Your task to perform on an android device: Go to location settings Image 0: 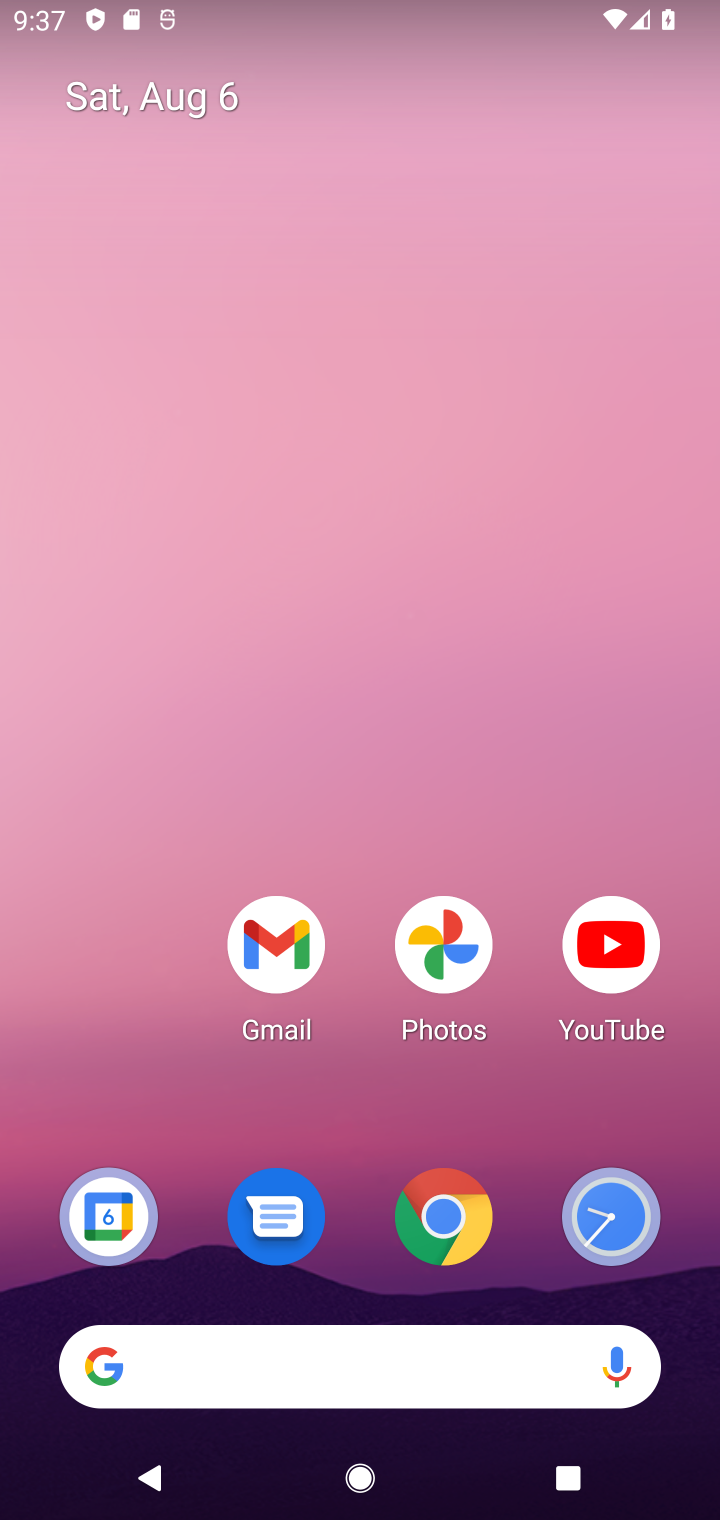
Step 0: press back button
Your task to perform on an android device: Go to location settings Image 1: 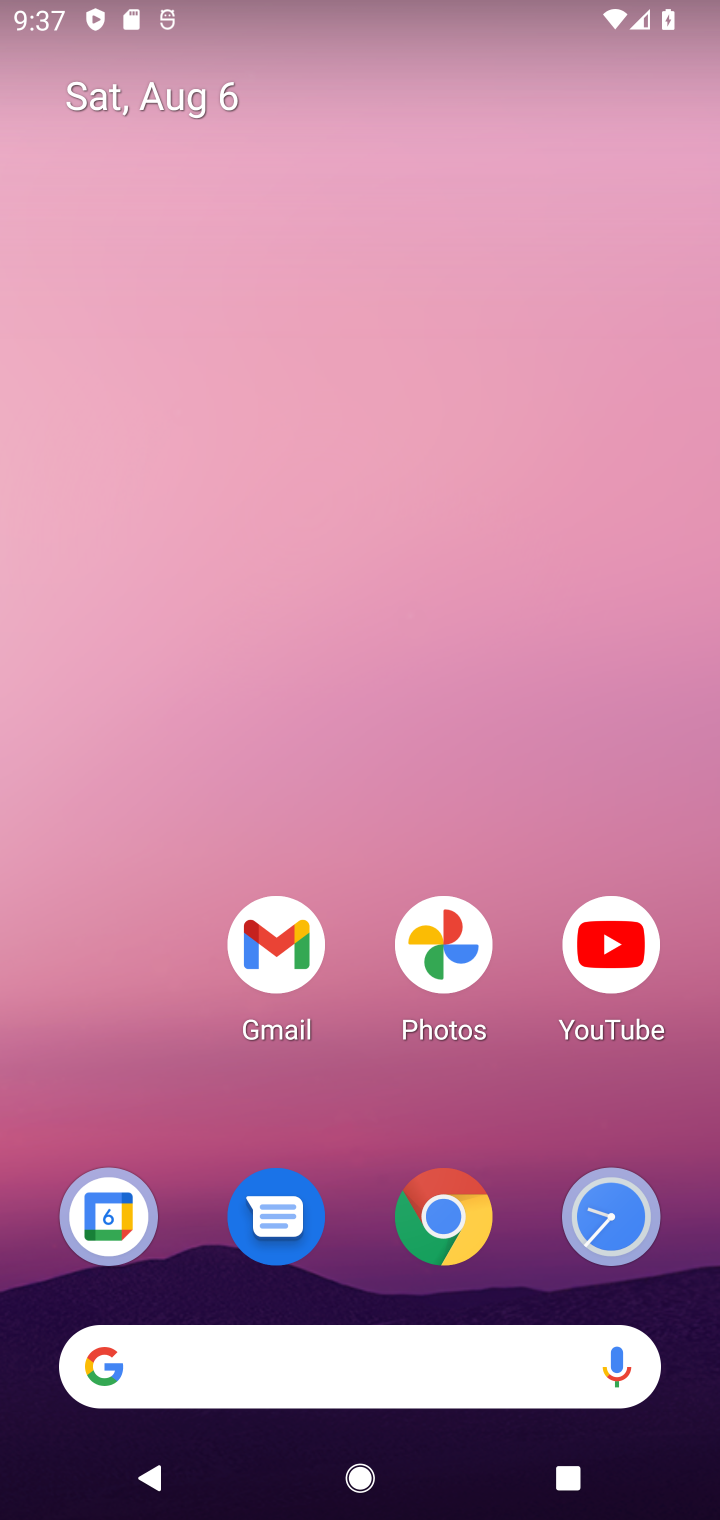
Step 1: press home button
Your task to perform on an android device: Go to location settings Image 2: 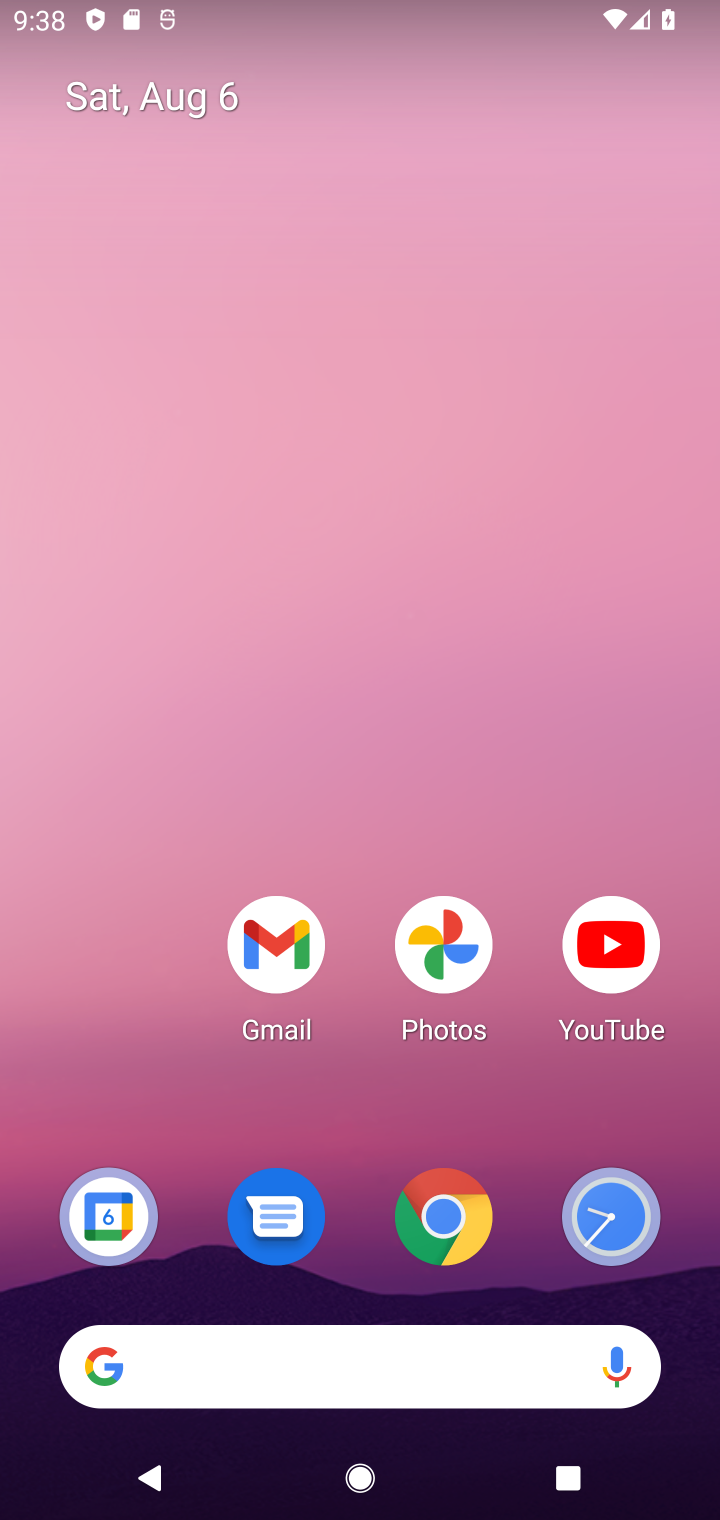
Step 2: drag from (419, 1306) to (360, 656)
Your task to perform on an android device: Go to location settings Image 3: 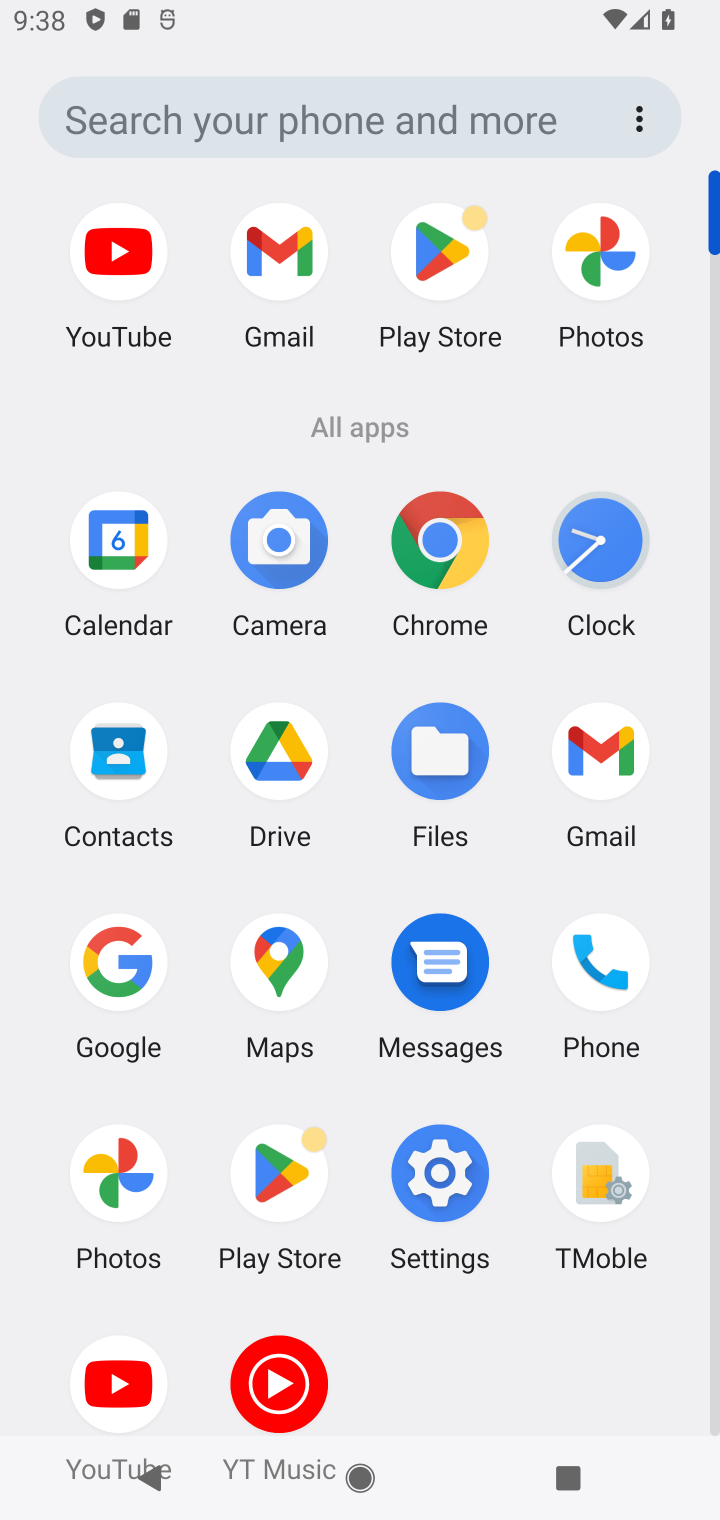
Step 3: click (458, 1196)
Your task to perform on an android device: Go to location settings Image 4: 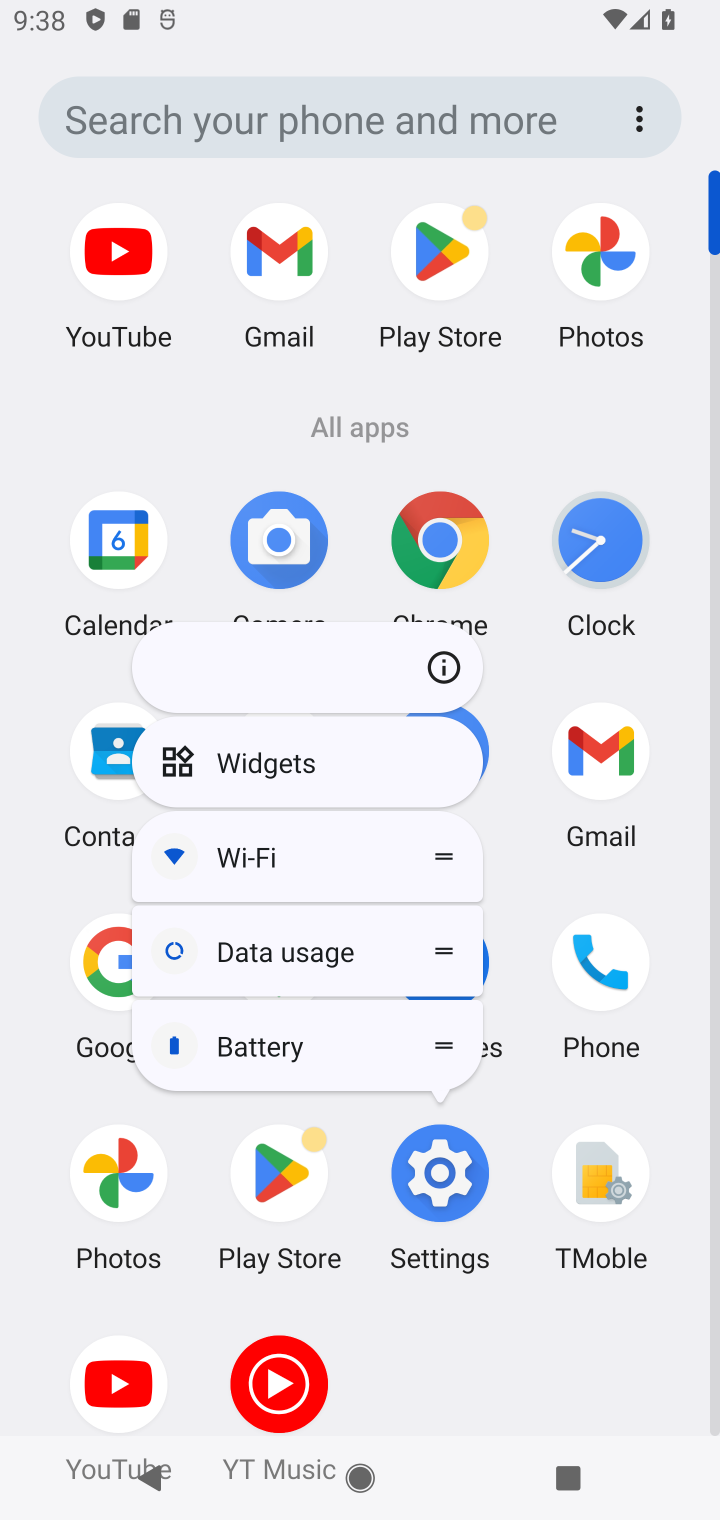
Step 4: click (433, 1176)
Your task to perform on an android device: Go to location settings Image 5: 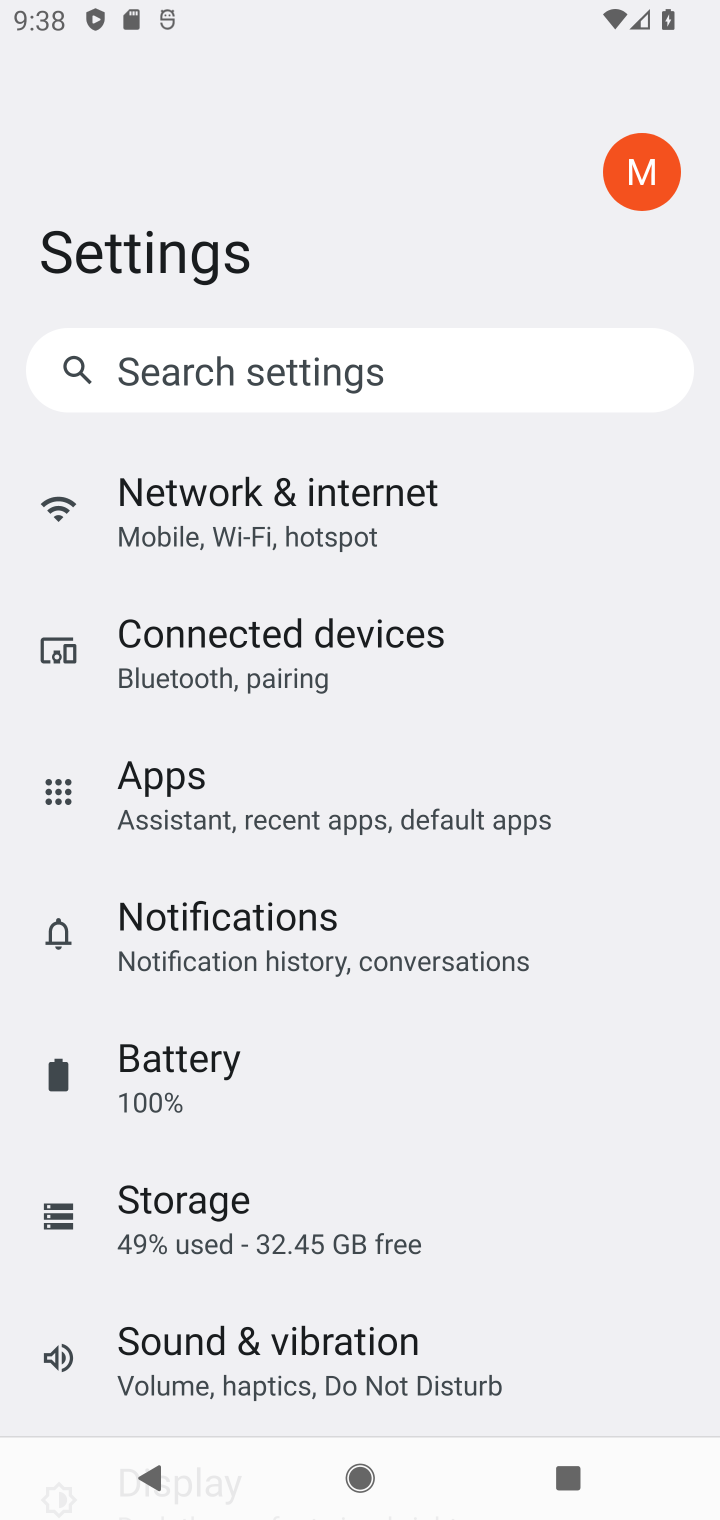
Step 5: drag from (286, 1193) to (286, 519)
Your task to perform on an android device: Go to location settings Image 6: 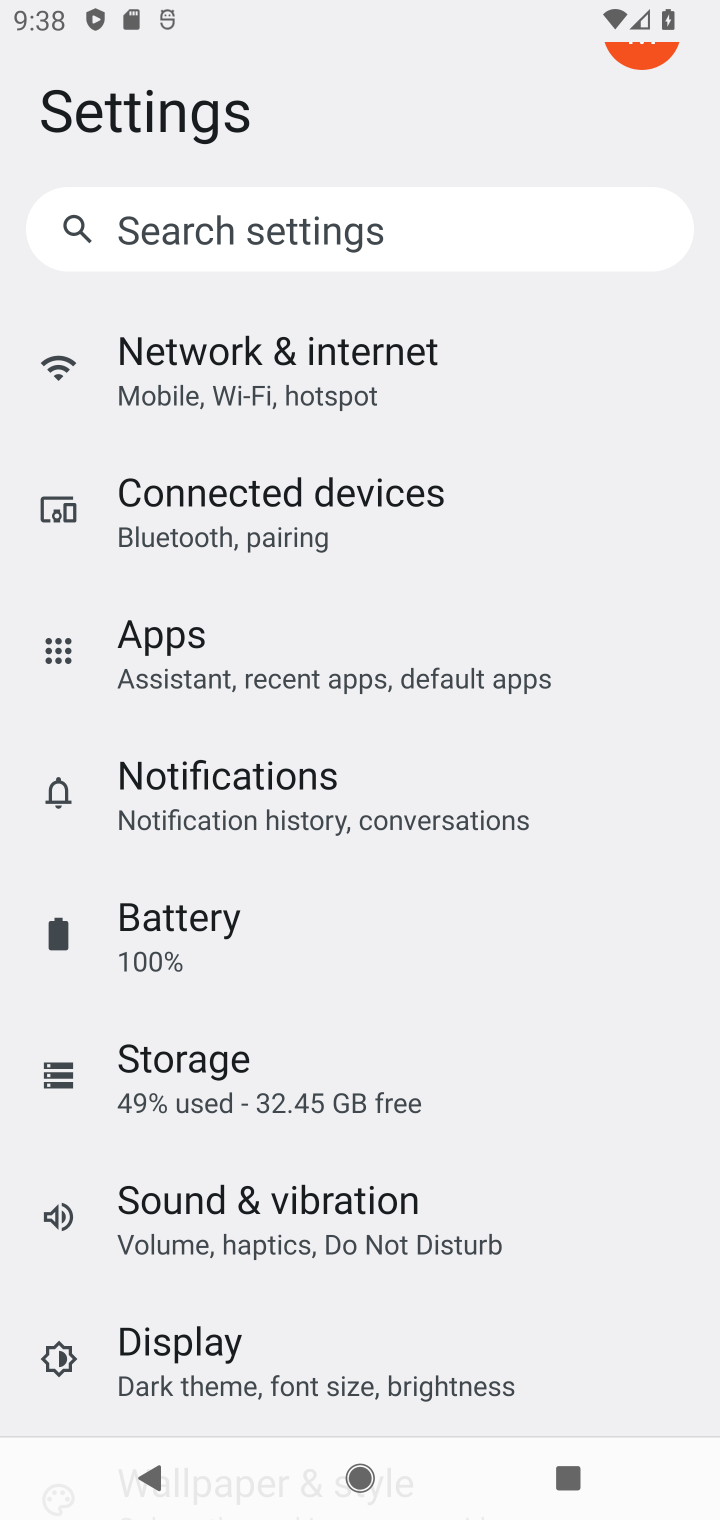
Step 6: drag from (207, 1377) to (207, 847)
Your task to perform on an android device: Go to location settings Image 7: 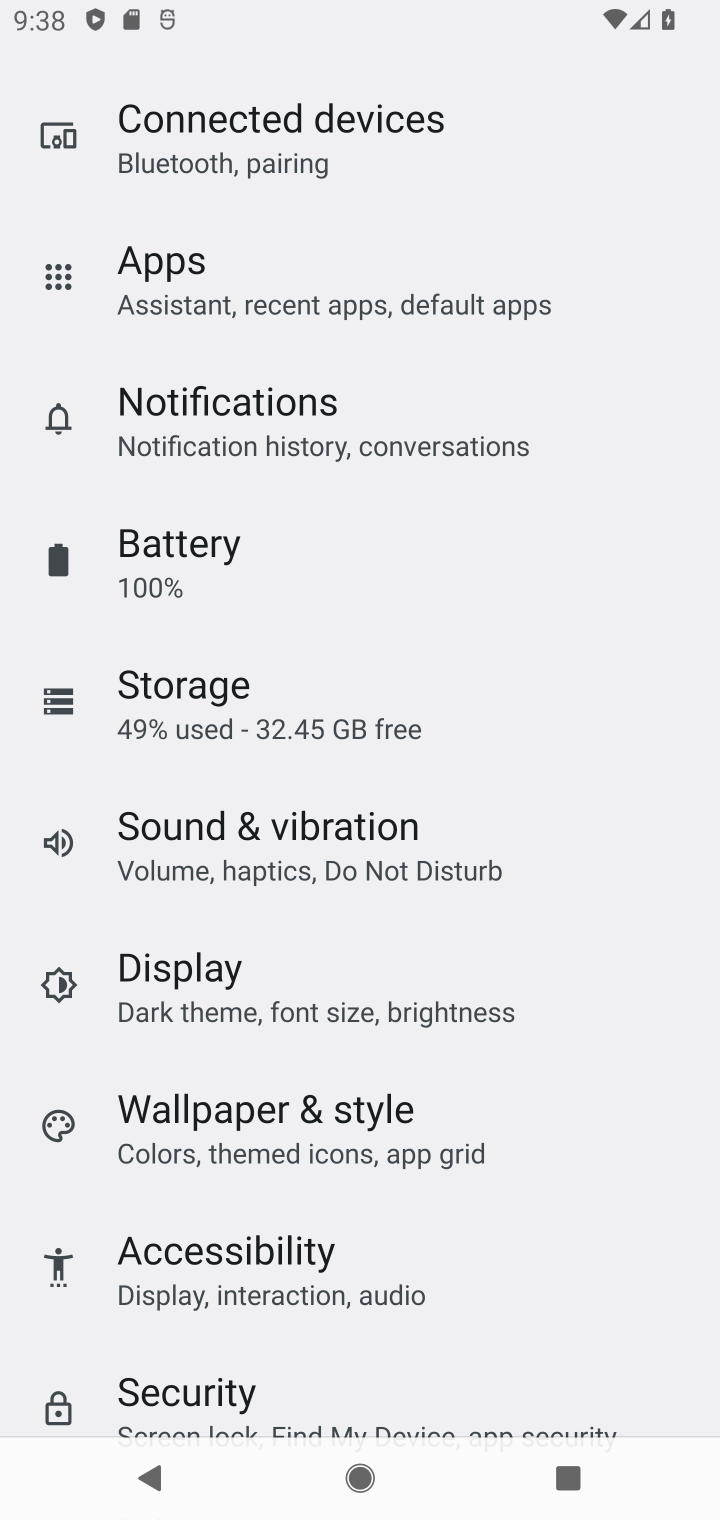
Step 7: drag from (197, 1363) to (199, 709)
Your task to perform on an android device: Go to location settings Image 8: 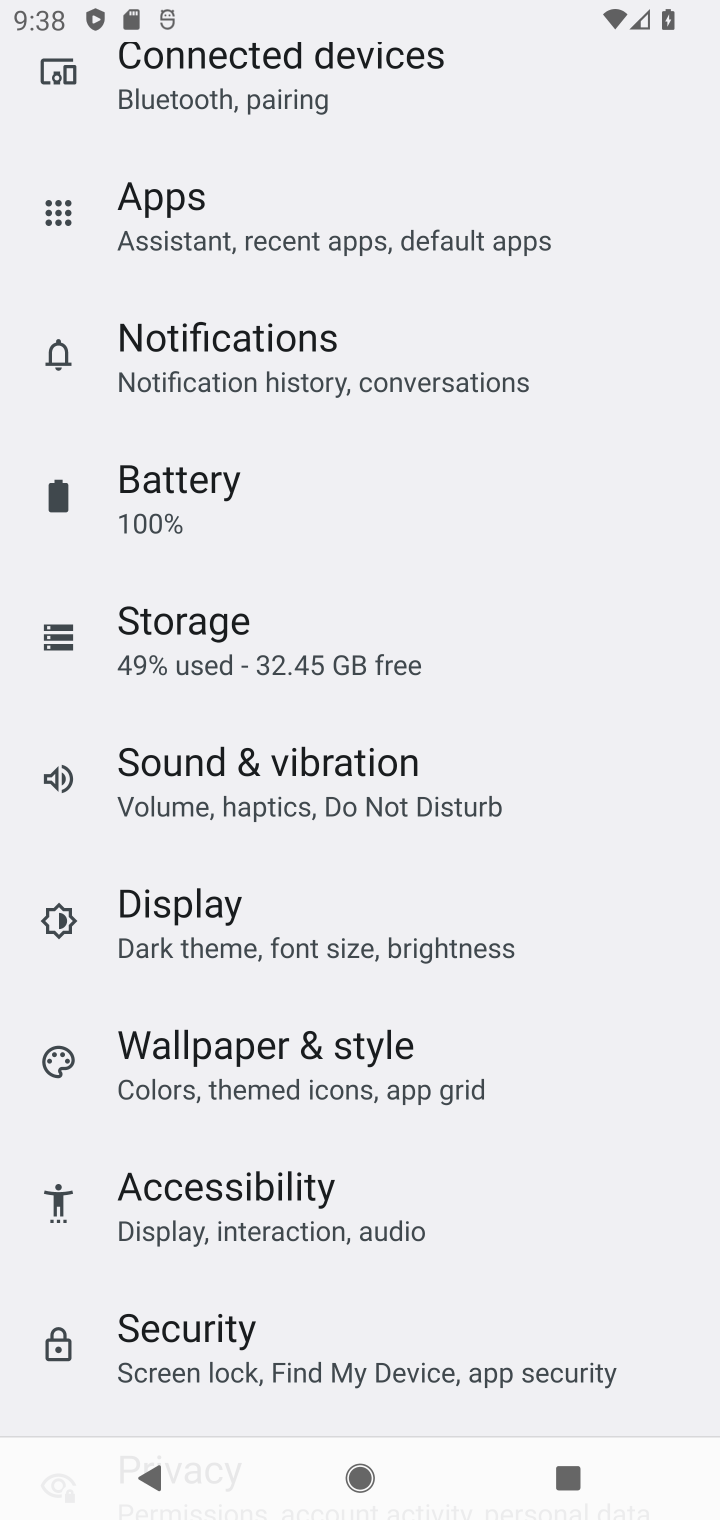
Step 8: drag from (222, 1182) to (222, 584)
Your task to perform on an android device: Go to location settings Image 9: 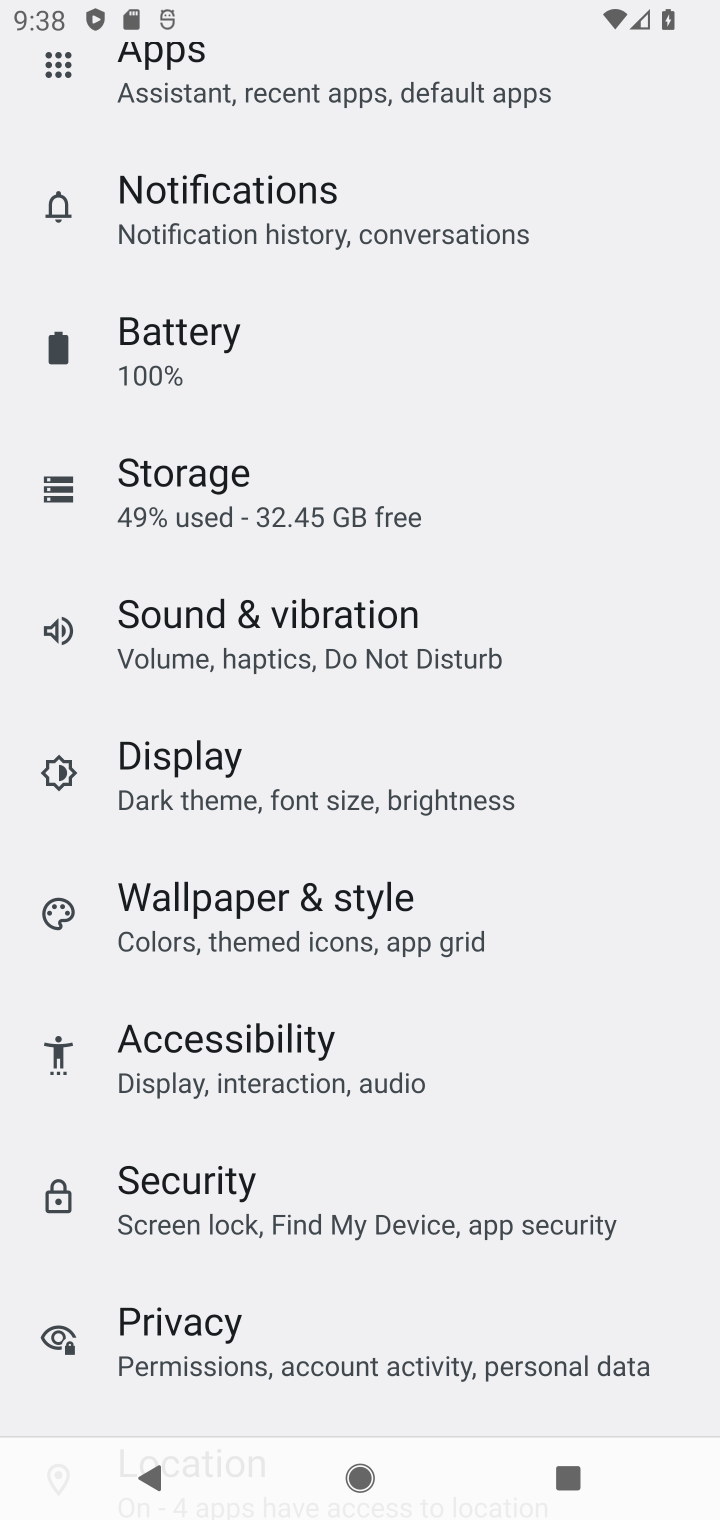
Step 9: drag from (181, 1326) to (189, 820)
Your task to perform on an android device: Go to location settings Image 10: 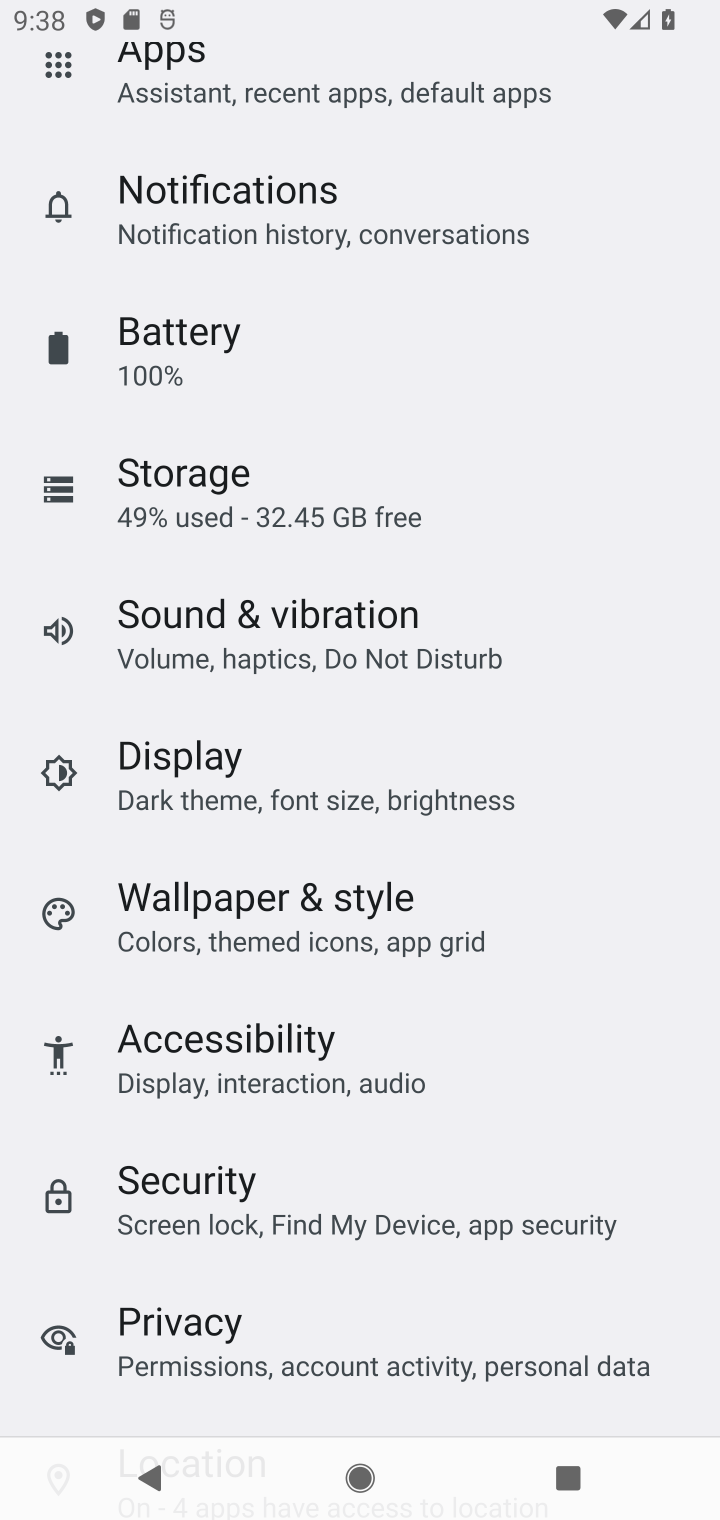
Step 10: drag from (175, 1207) to (175, 823)
Your task to perform on an android device: Go to location settings Image 11: 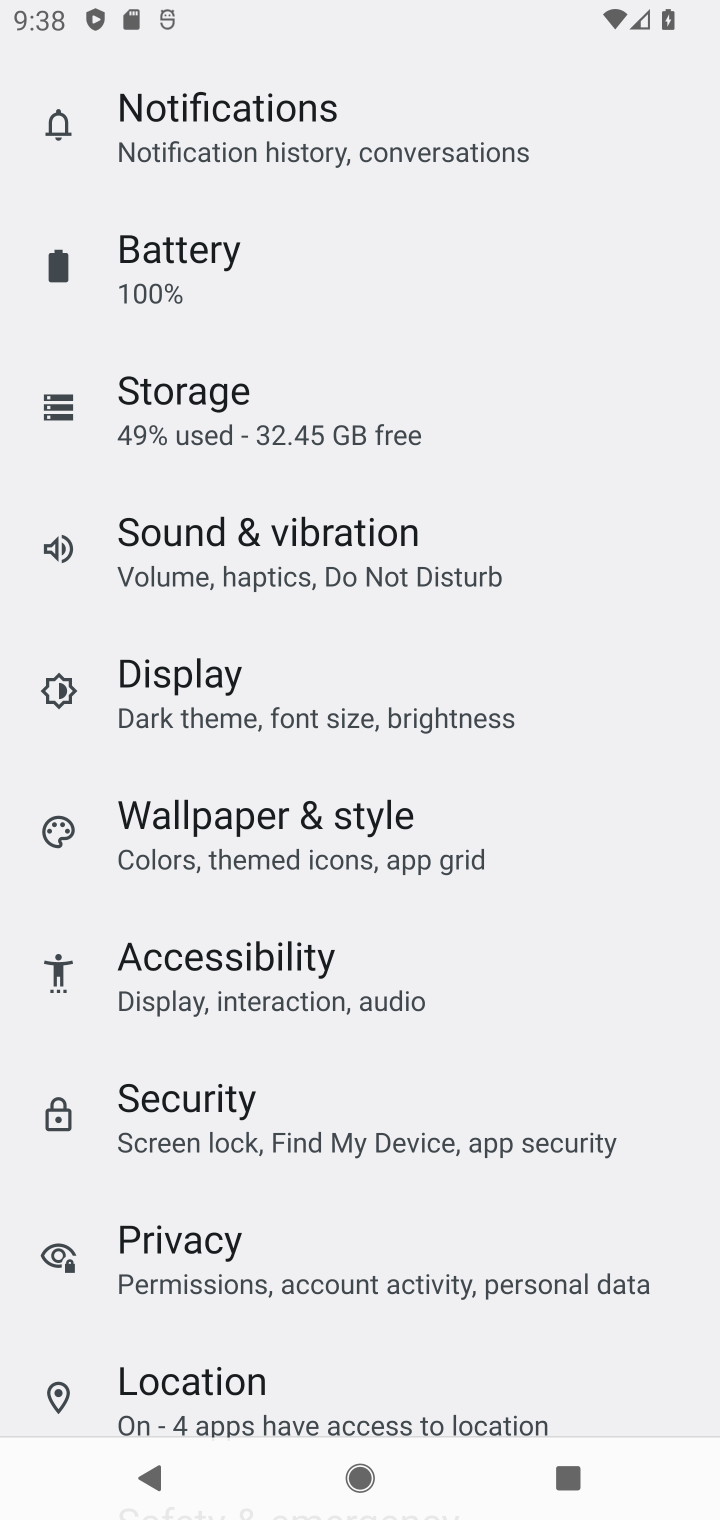
Step 11: click (236, 1401)
Your task to perform on an android device: Go to location settings Image 12: 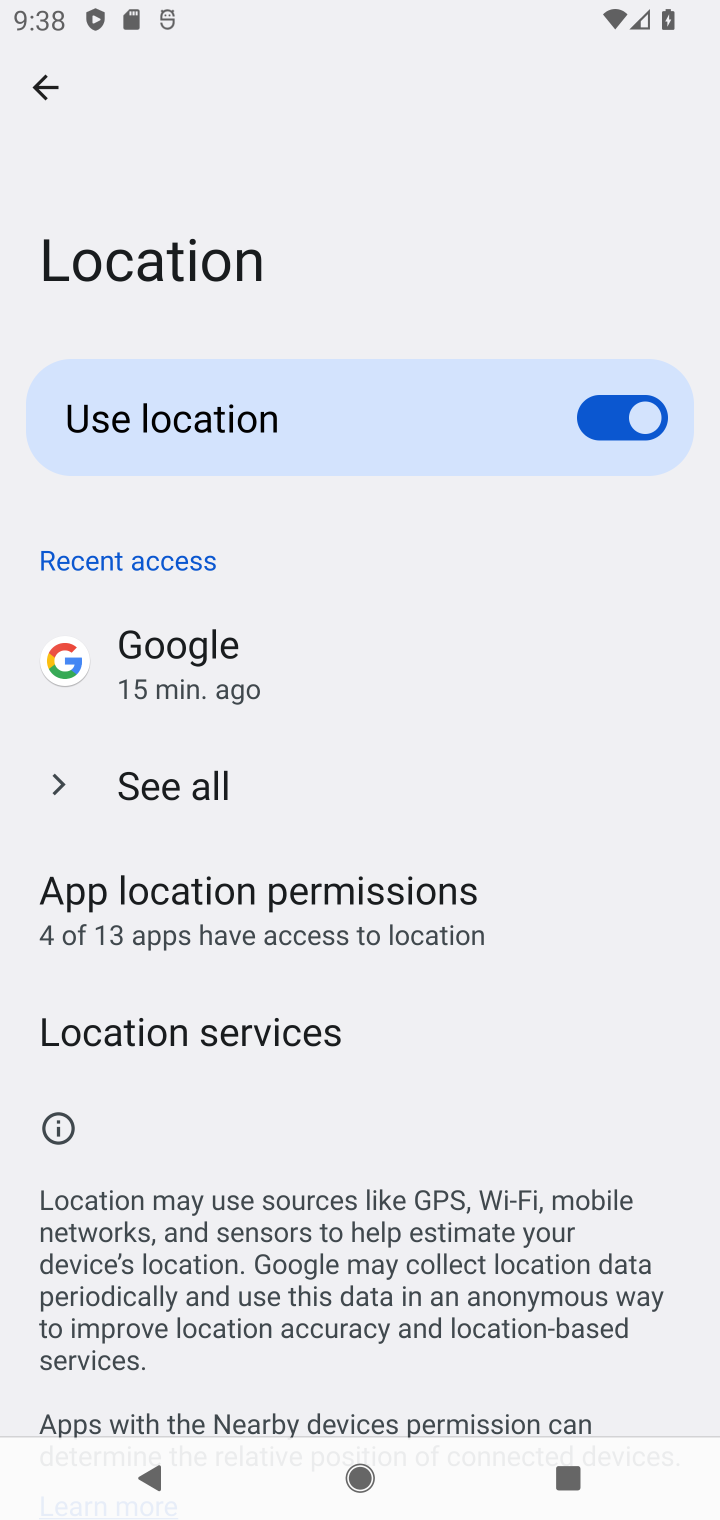
Step 12: task complete